Your task to perform on an android device: delete the emails in spam in the gmail app Image 0: 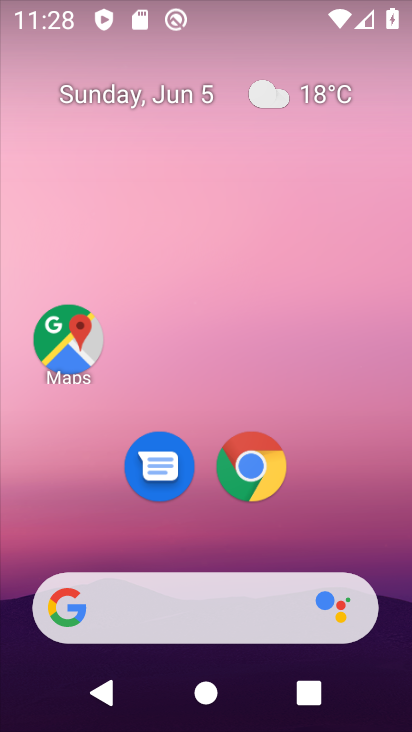
Step 0: drag from (337, 510) to (218, 35)
Your task to perform on an android device: delete the emails in spam in the gmail app Image 1: 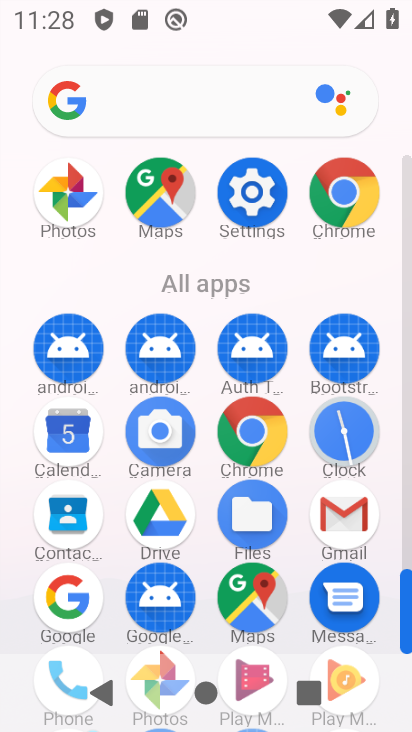
Step 1: drag from (18, 617) to (19, 254)
Your task to perform on an android device: delete the emails in spam in the gmail app Image 2: 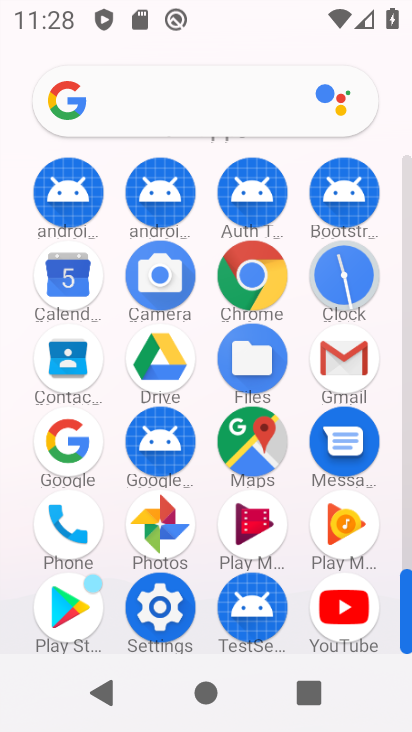
Step 2: click (343, 356)
Your task to perform on an android device: delete the emails in spam in the gmail app Image 3: 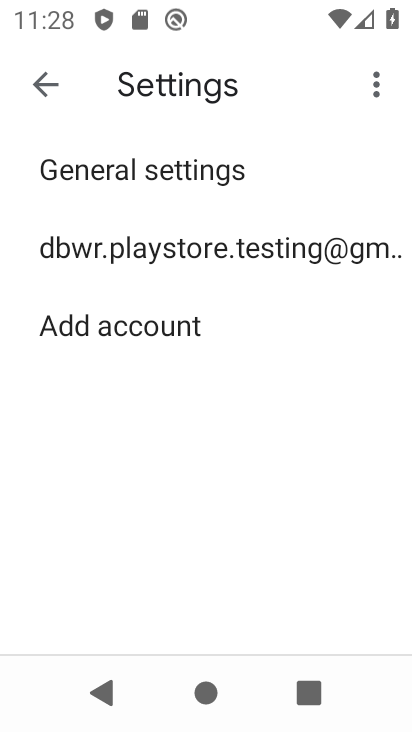
Step 3: click (33, 84)
Your task to perform on an android device: delete the emails in spam in the gmail app Image 4: 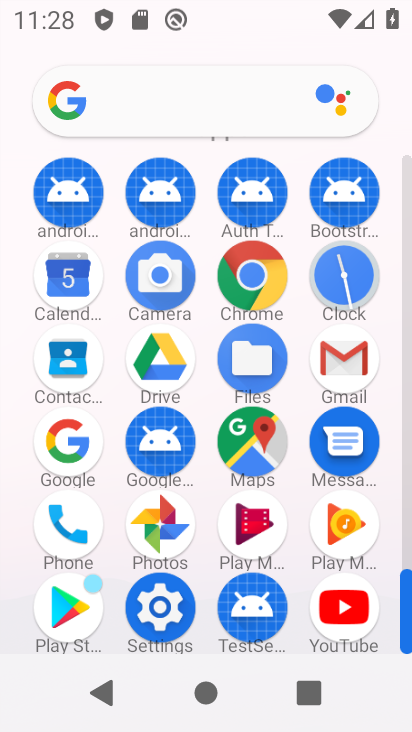
Step 4: click (347, 350)
Your task to perform on an android device: delete the emails in spam in the gmail app Image 5: 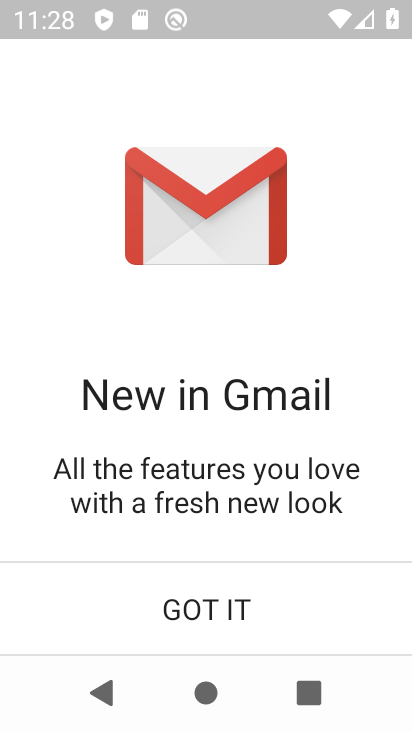
Step 5: click (197, 612)
Your task to perform on an android device: delete the emails in spam in the gmail app Image 6: 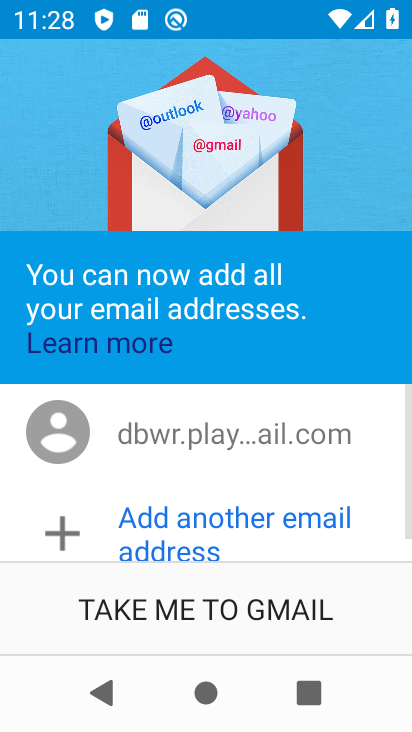
Step 6: click (178, 636)
Your task to perform on an android device: delete the emails in spam in the gmail app Image 7: 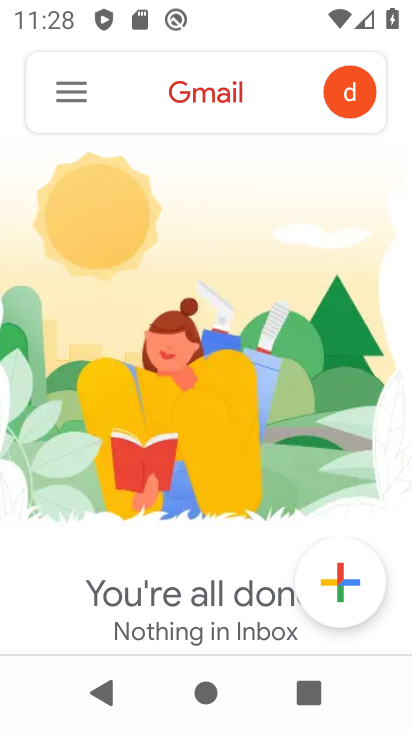
Step 7: click (73, 81)
Your task to perform on an android device: delete the emails in spam in the gmail app Image 8: 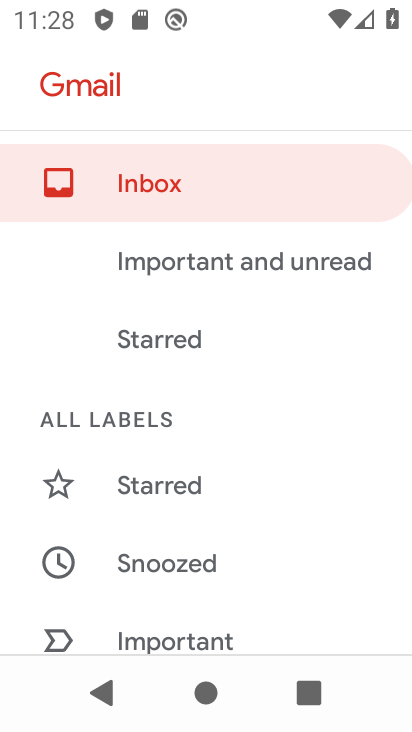
Step 8: drag from (222, 576) to (259, 143)
Your task to perform on an android device: delete the emails in spam in the gmail app Image 9: 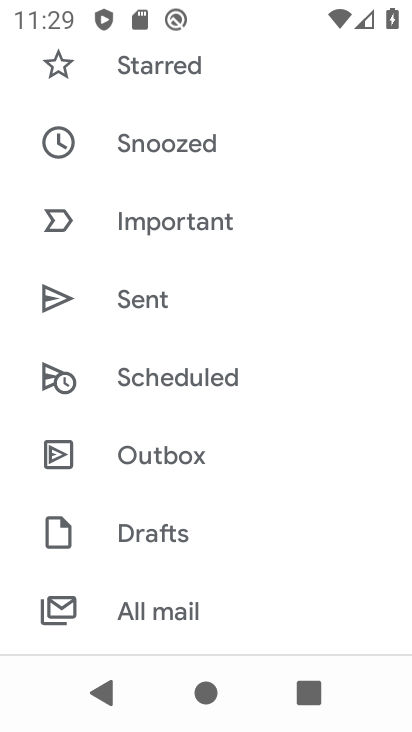
Step 9: drag from (242, 572) to (270, 153)
Your task to perform on an android device: delete the emails in spam in the gmail app Image 10: 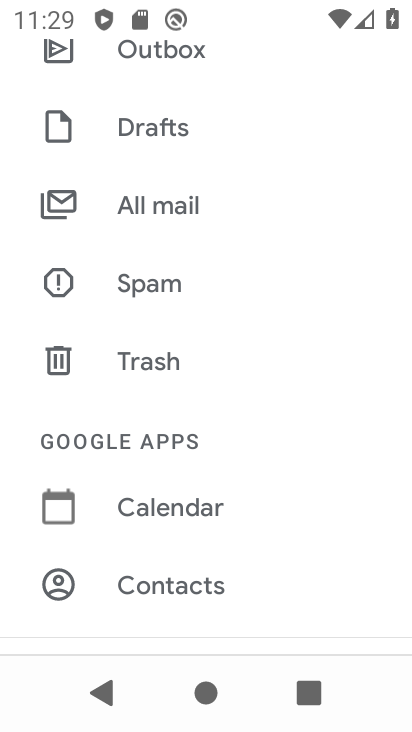
Step 10: drag from (279, 525) to (274, 156)
Your task to perform on an android device: delete the emails in spam in the gmail app Image 11: 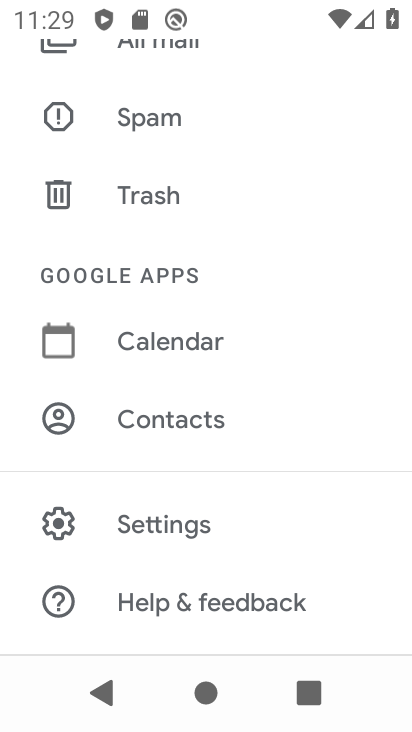
Step 11: click (183, 113)
Your task to perform on an android device: delete the emails in spam in the gmail app Image 12: 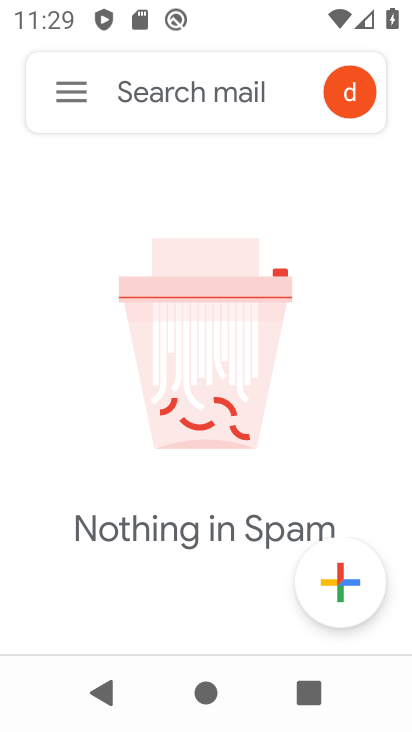
Step 12: task complete